Your task to perform on an android device: Open the map Image 0: 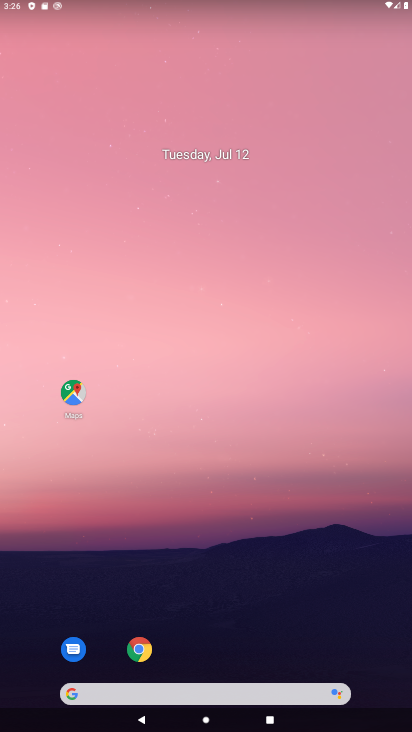
Step 0: click (75, 390)
Your task to perform on an android device: Open the map Image 1: 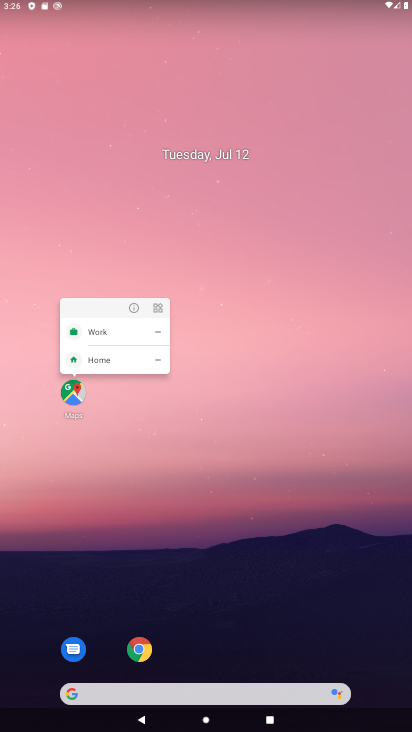
Step 1: click (70, 391)
Your task to perform on an android device: Open the map Image 2: 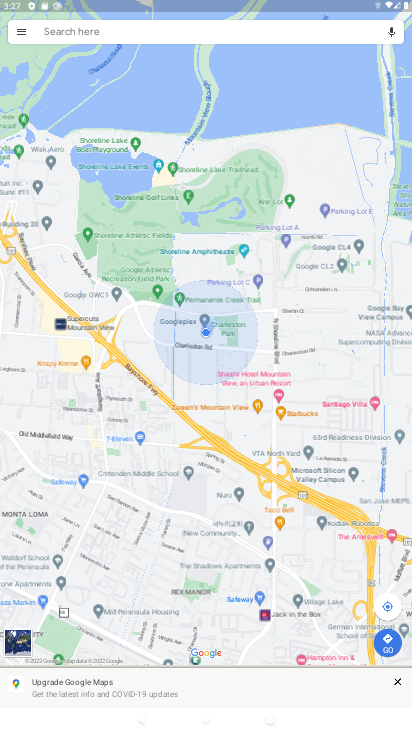
Step 2: task complete